Your task to perform on an android device: toggle pop-ups in chrome Image 0: 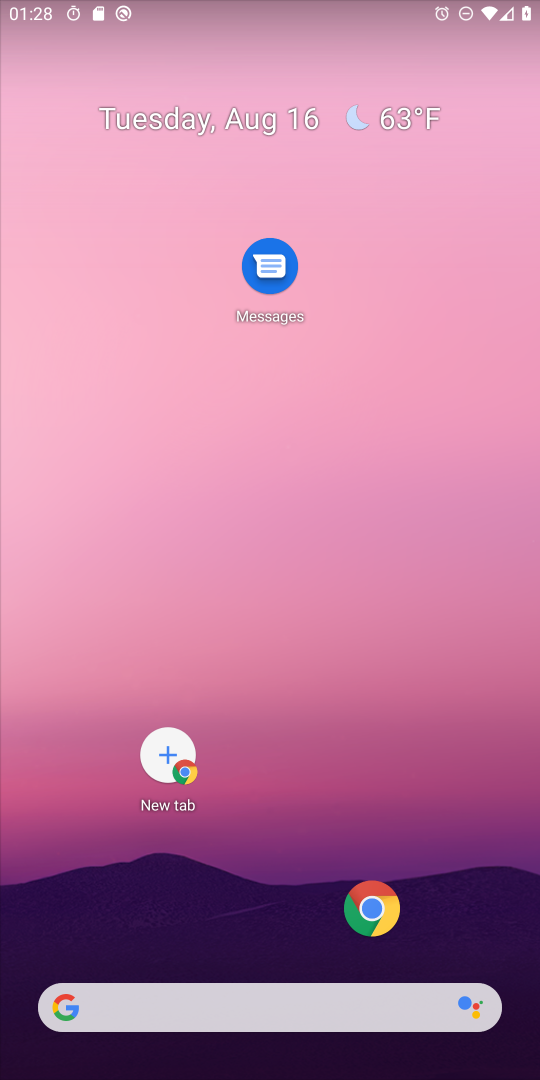
Step 0: click (372, 922)
Your task to perform on an android device: toggle pop-ups in chrome Image 1: 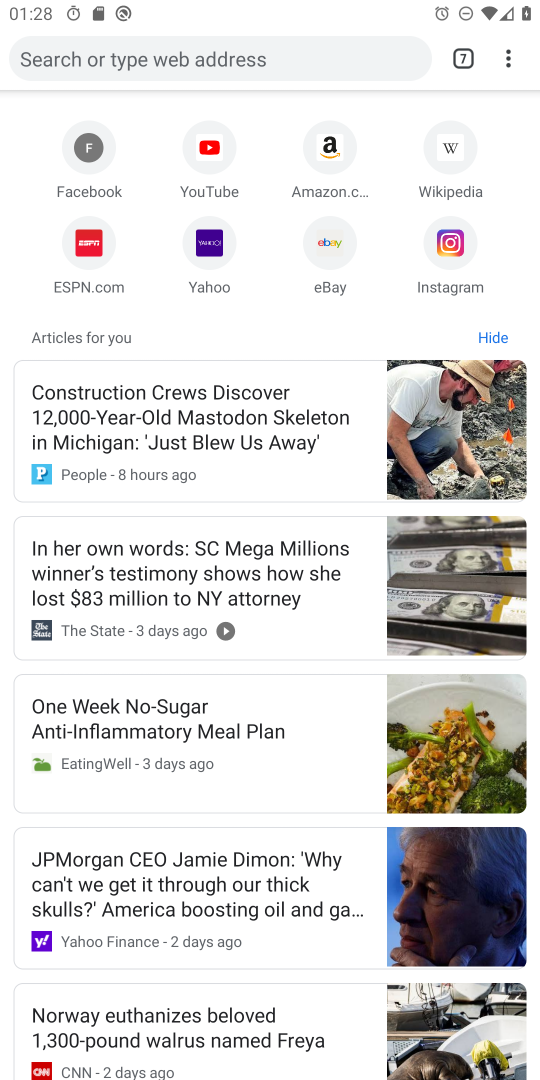
Step 1: click (523, 66)
Your task to perform on an android device: toggle pop-ups in chrome Image 2: 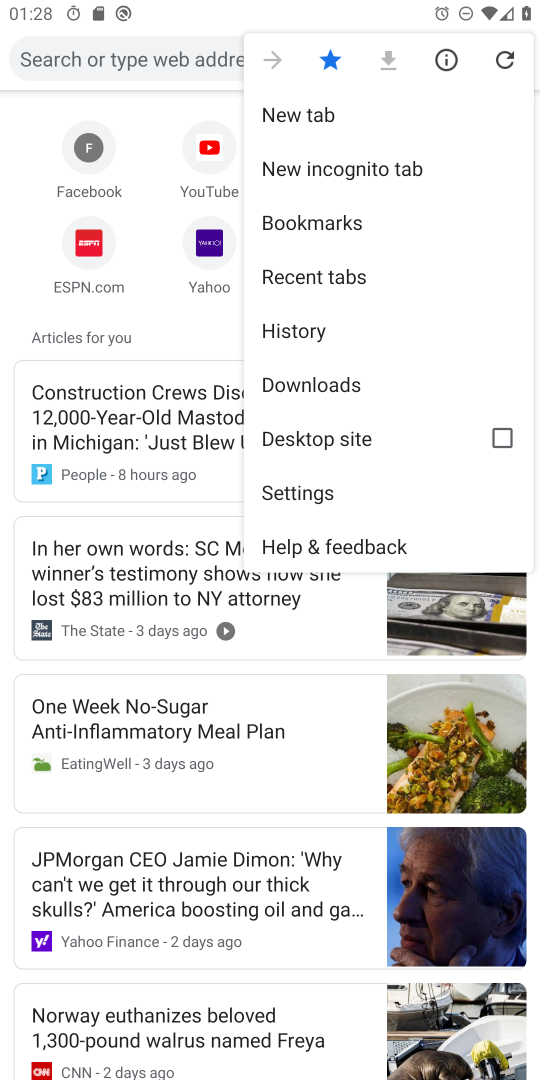
Step 2: click (360, 500)
Your task to perform on an android device: toggle pop-ups in chrome Image 3: 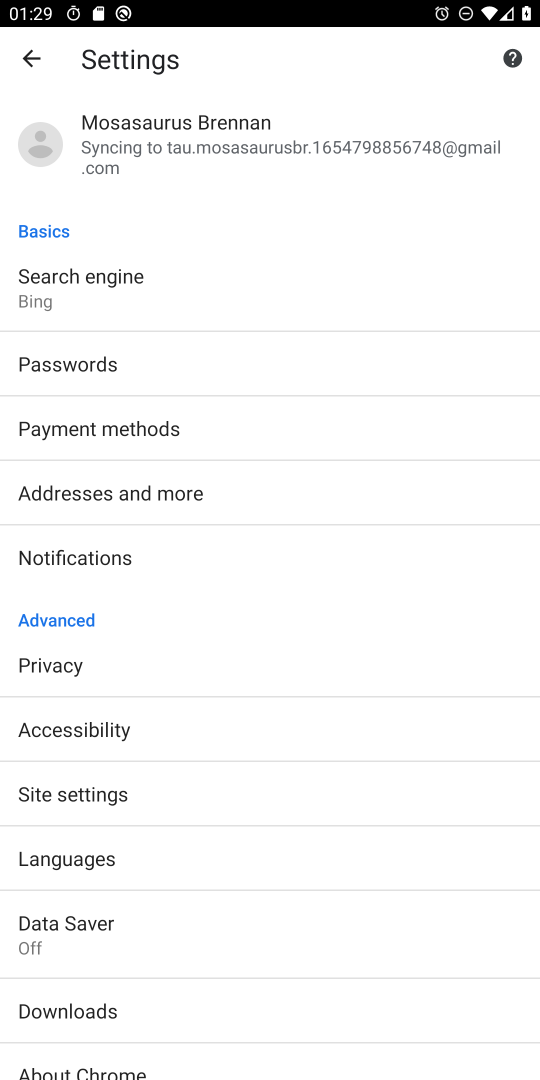
Step 3: click (51, 783)
Your task to perform on an android device: toggle pop-ups in chrome Image 4: 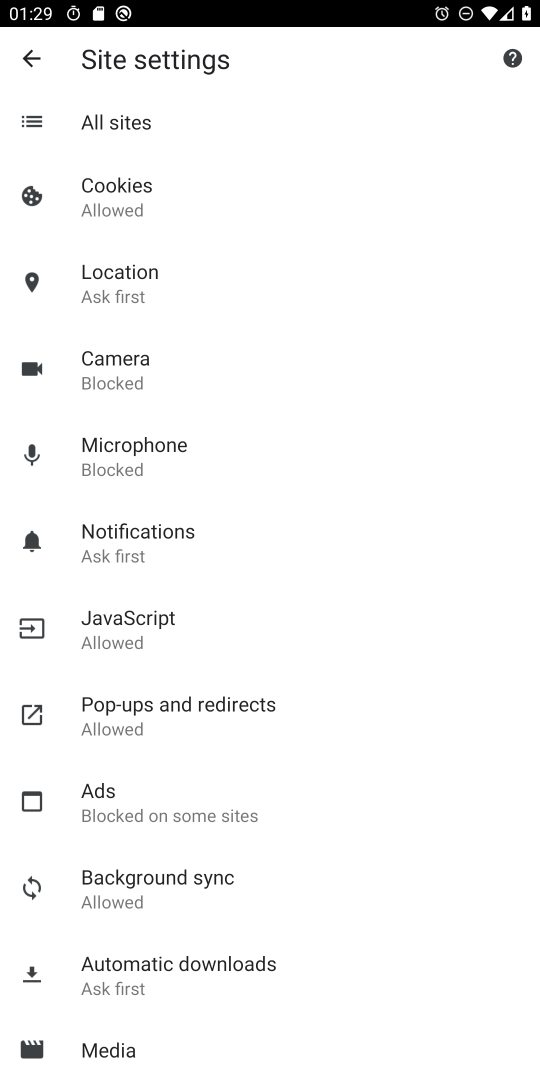
Step 4: click (214, 702)
Your task to perform on an android device: toggle pop-ups in chrome Image 5: 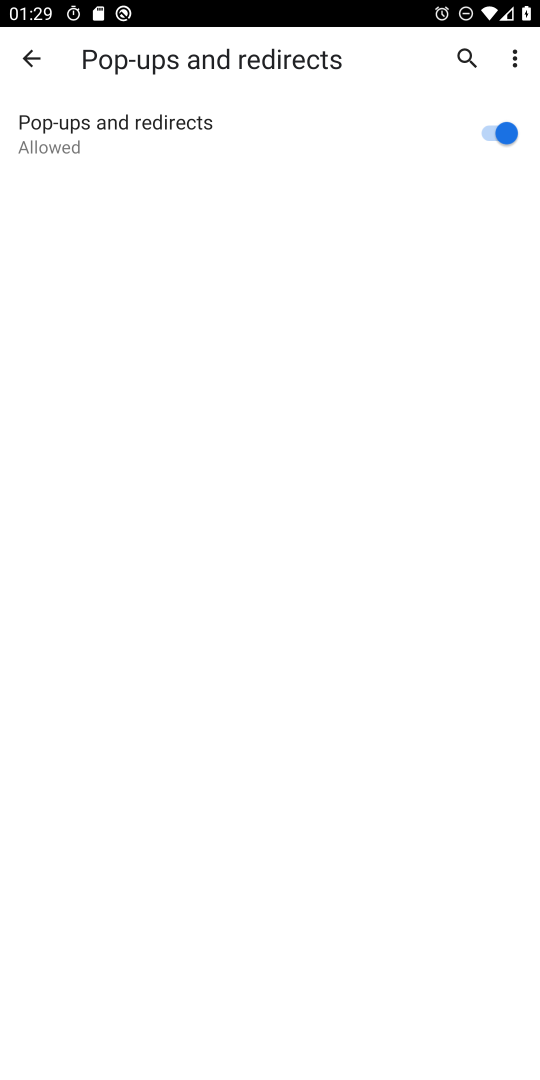
Step 5: click (502, 140)
Your task to perform on an android device: toggle pop-ups in chrome Image 6: 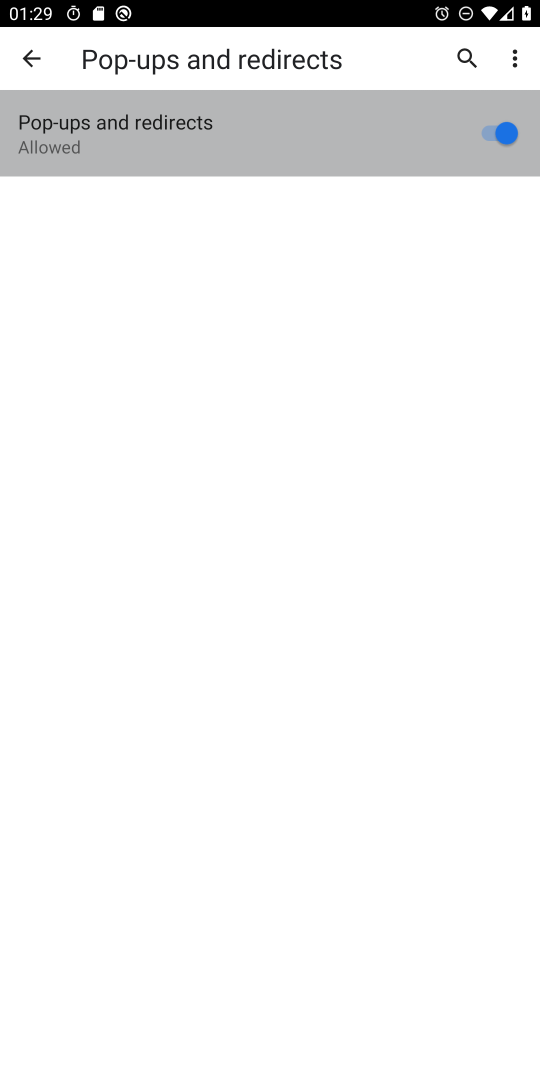
Step 6: click (502, 140)
Your task to perform on an android device: toggle pop-ups in chrome Image 7: 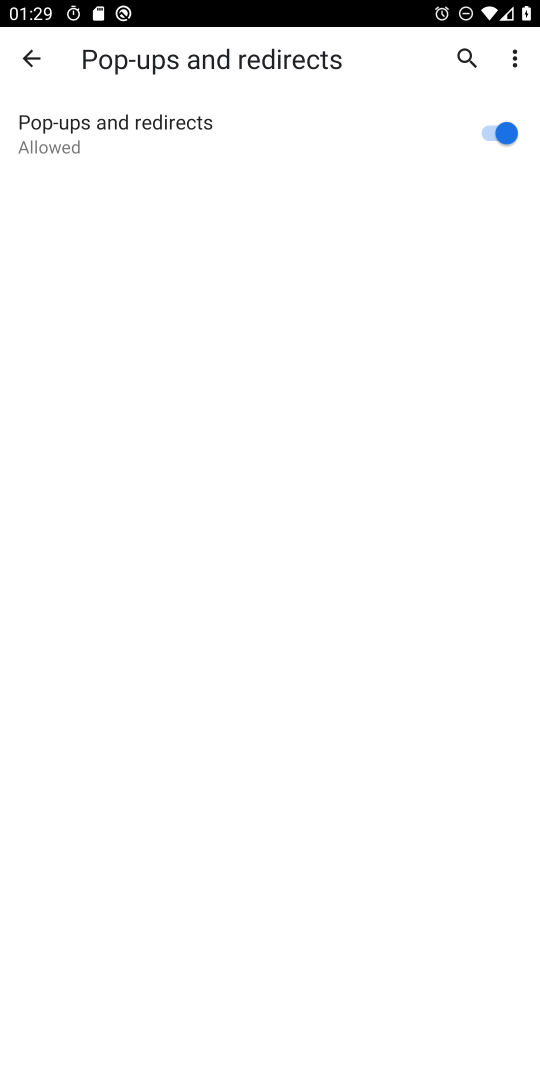
Step 7: task complete